Your task to perform on an android device: Open the map Image 0: 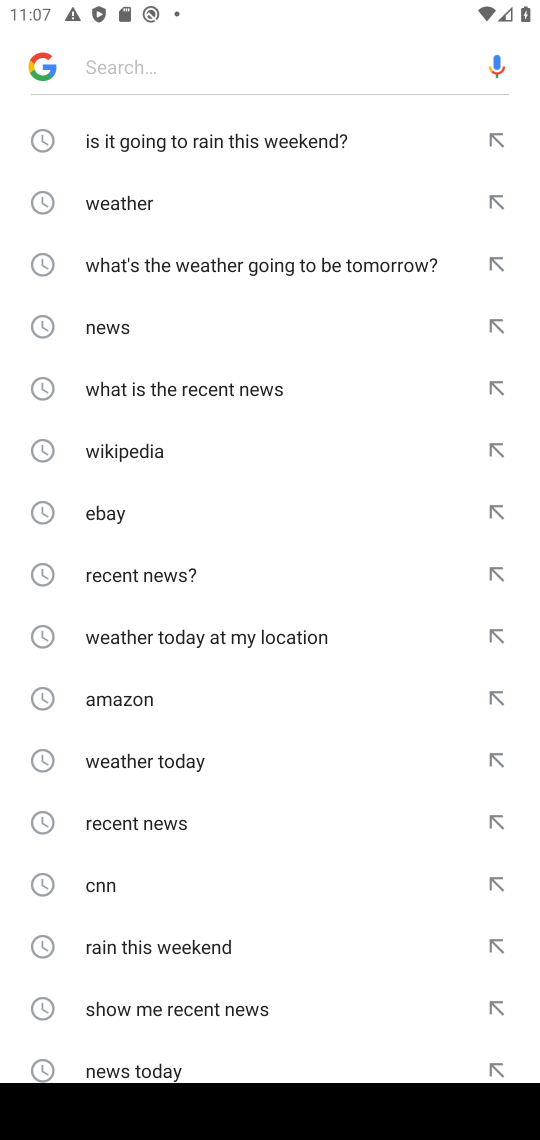
Step 0: press home button
Your task to perform on an android device: Open the map Image 1: 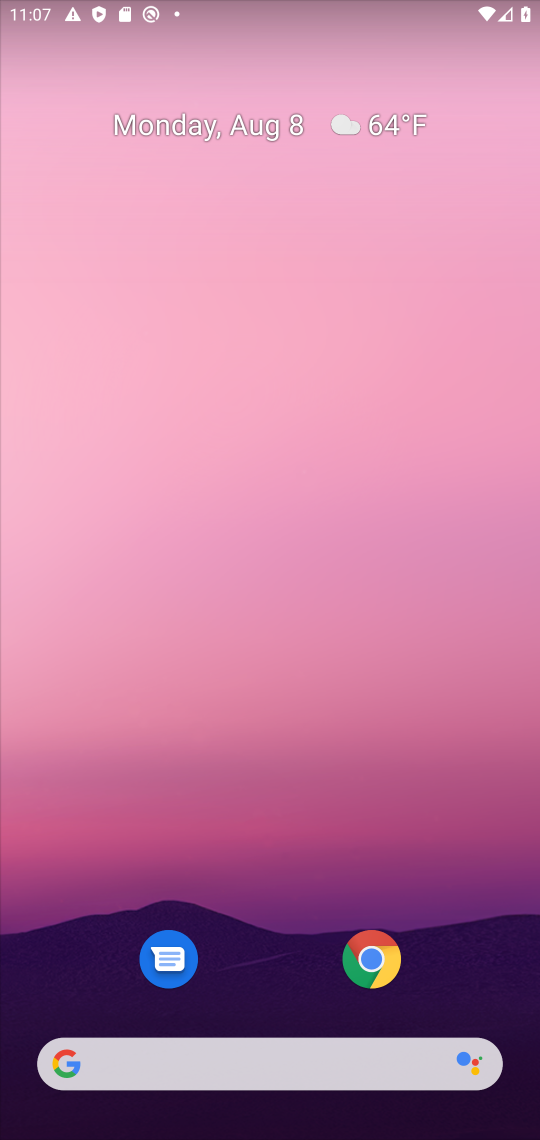
Step 1: drag from (474, 962) to (382, 140)
Your task to perform on an android device: Open the map Image 2: 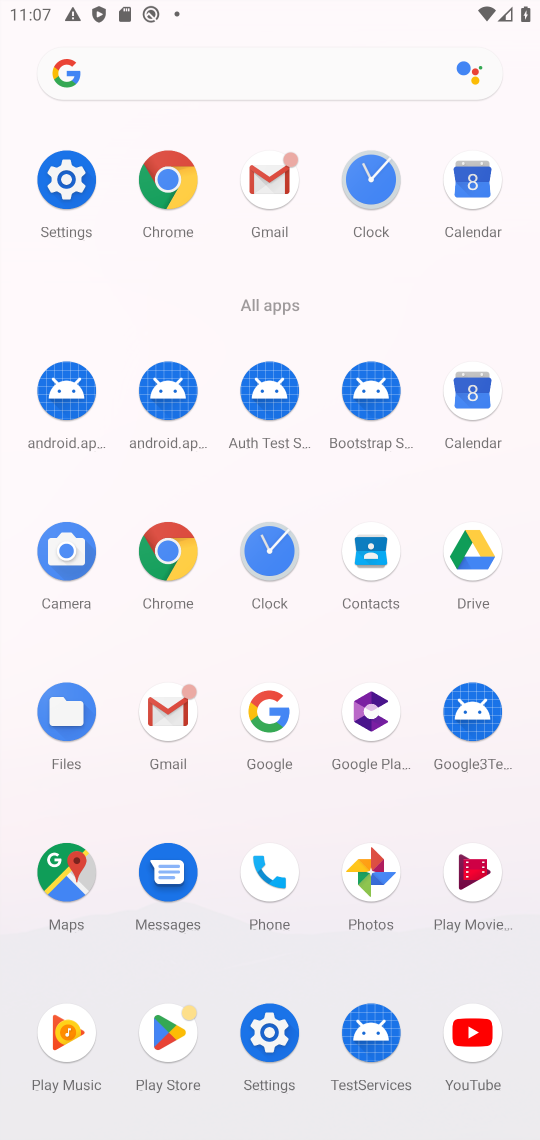
Step 2: click (72, 877)
Your task to perform on an android device: Open the map Image 3: 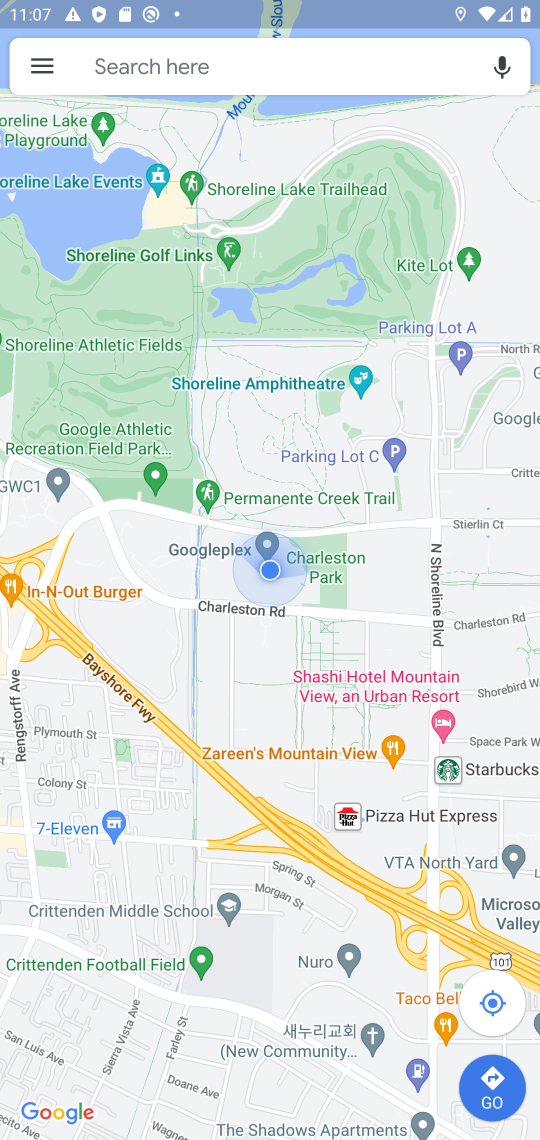
Step 3: task complete